Your task to perform on an android device: change the clock style Image 0: 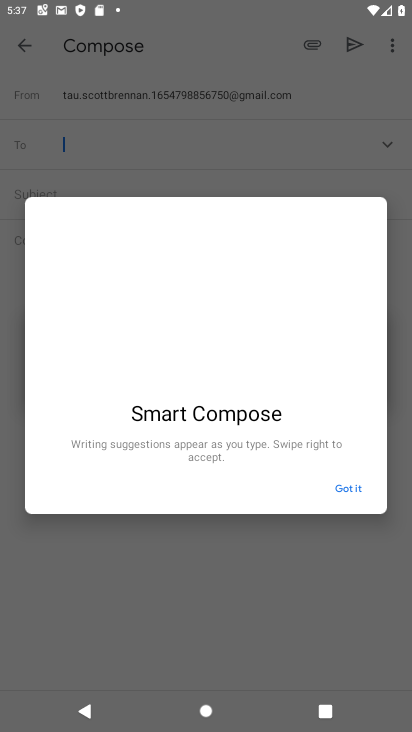
Step 0: press home button
Your task to perform on an android device: change the clock style Image 1: 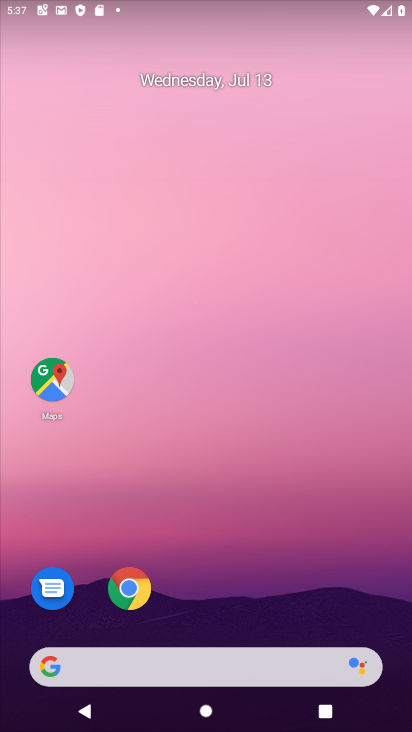
Step 1: drag from (257, 587) to (226, 90)
Your task to perform on an android device: change the clock style Image 2: 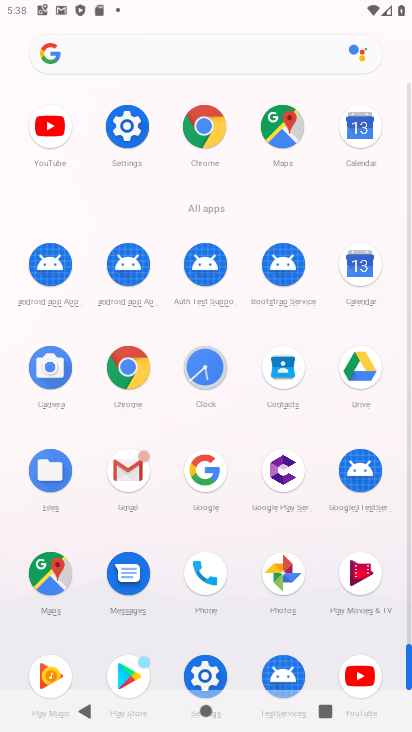
Step 2: click (192, 366)
Your task to perform on an android device: change the clock style Image 3: 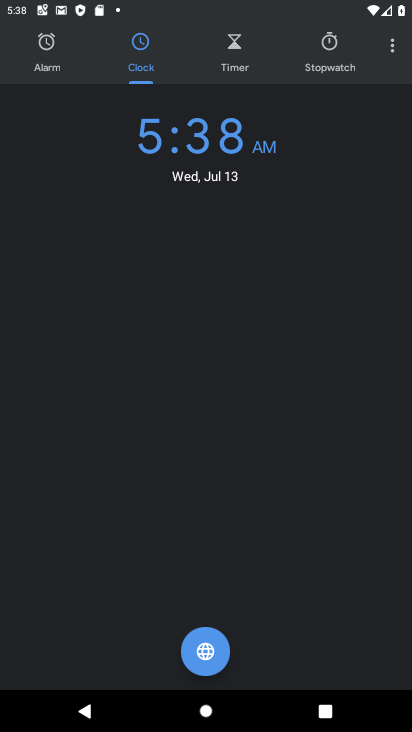
Step 3: click (393, 40)
Your task to perform on an android device: change the clock style Image 4: 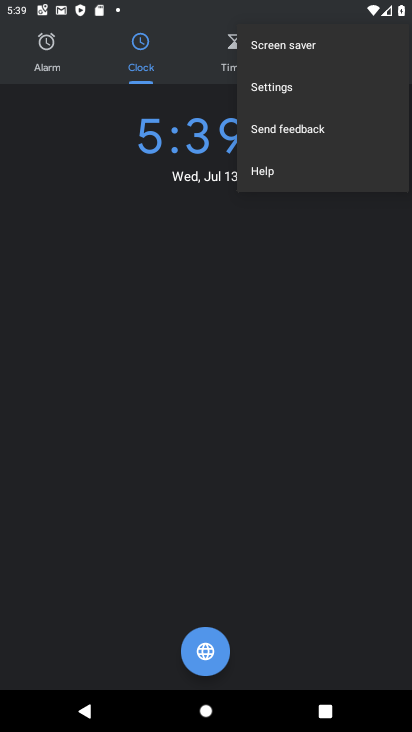
Step 4: click (273, 88)
Your task to perform on an android device: change the clock style Image 5: 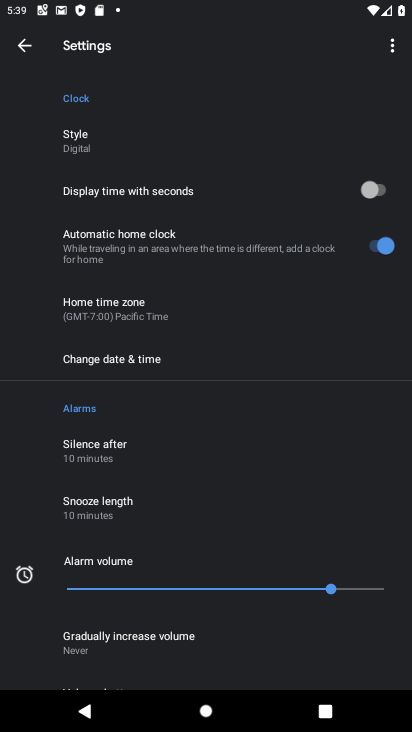
Step 5: click (82, 146)
Your task to perform on an android device: change the clock style Image 6: 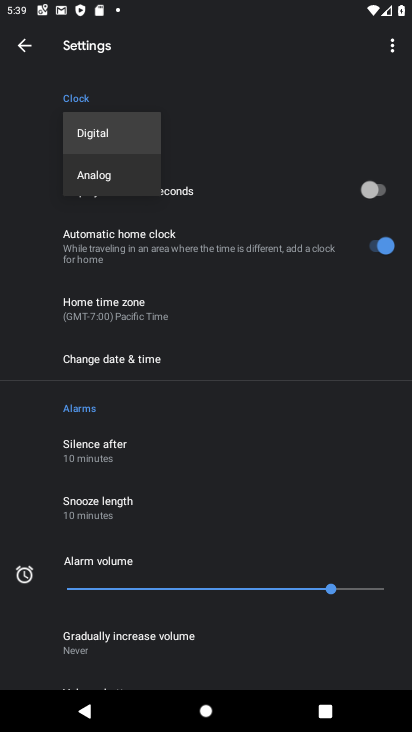
Step 6: click (107, 180)
Your task to perform on an android device: change the clock style Image 7: 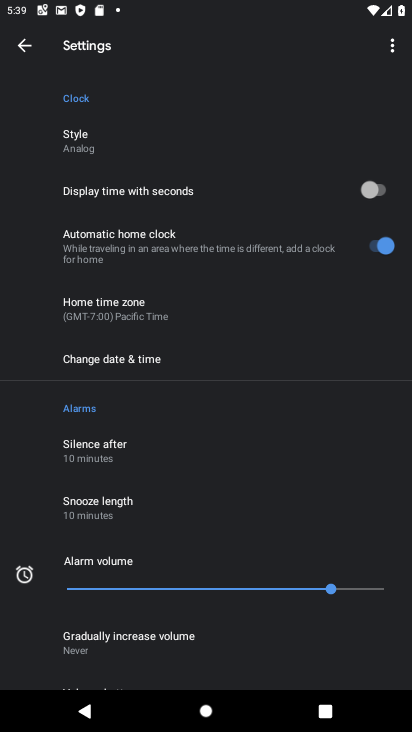
Step 7: task complete